Your task to perform on an android device: toggle notification dots Image 0: 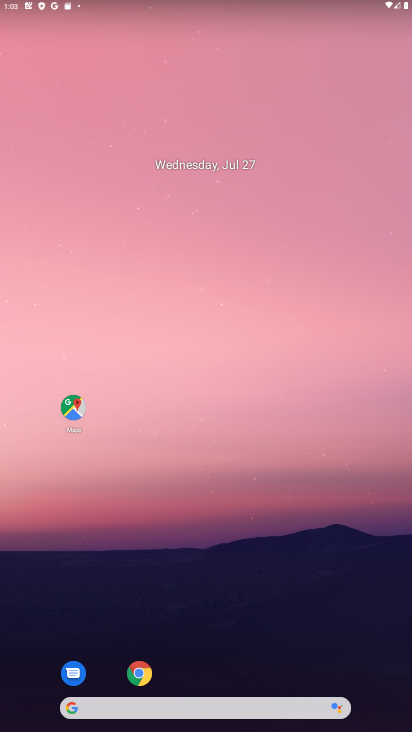
Step 0: drag from (205, 685) to (241, 11)
Your task to perform on an android device: toggle notification dots Image 1: 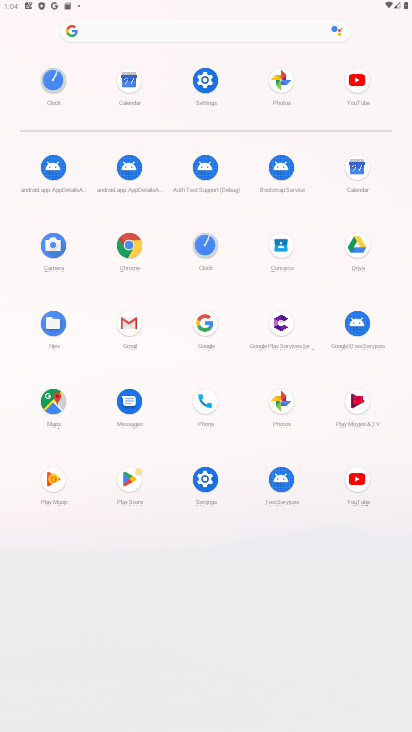
Step 1: click (207, 83)
Your task to perform on an android device: toggle notification dots Image 2: 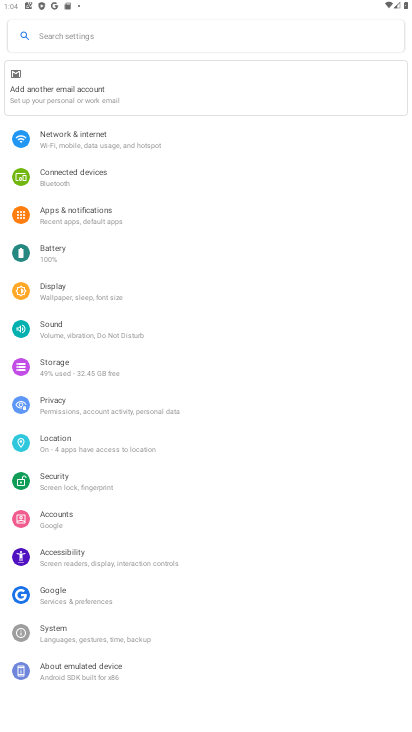
Step 2: click (65, 209)
Your task to perform on an android device: toggle notification dots Image 3: 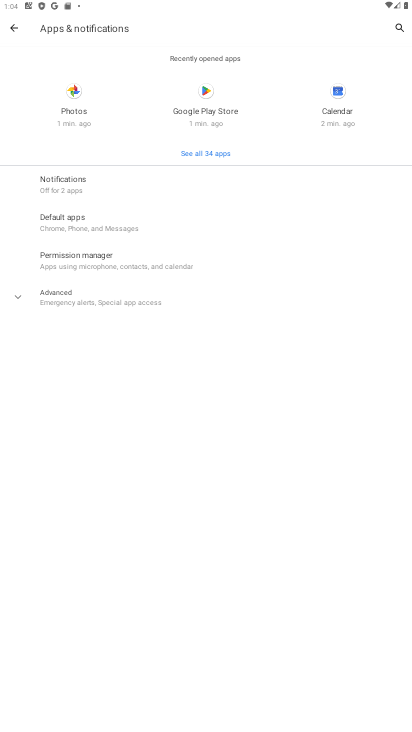
Step 3: click (53, 194)
Your task to perform on an android device: toggle notification dots Image 4: 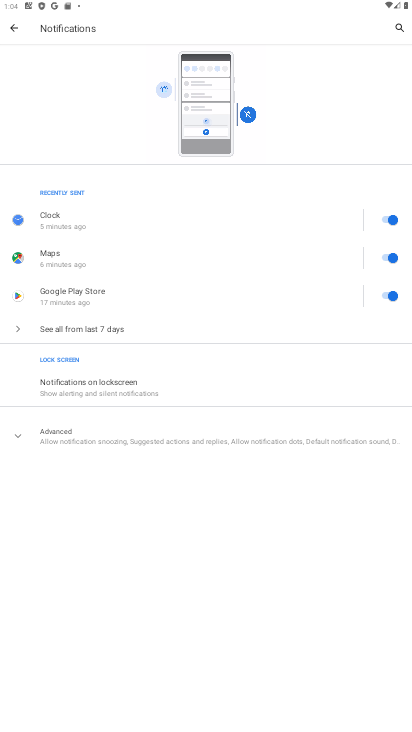
Step 4: click (12, 444)
Your task to perform on an android device: toggle notification dots Image 5: 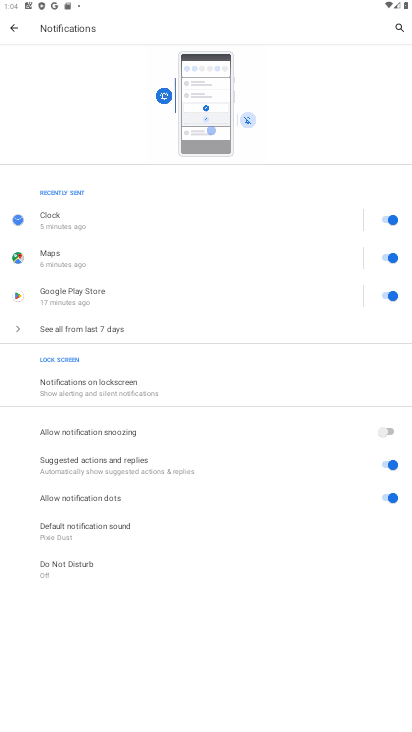
Step 5: click (396, 502)
Your task to perform on an android device: toggle notification dots Image 6: 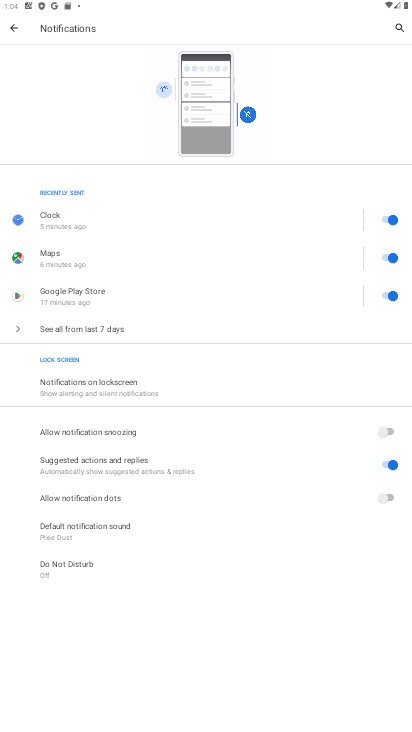
Step 6: task complete